Your task to perform on an android device: What's the news this month? Image 0: 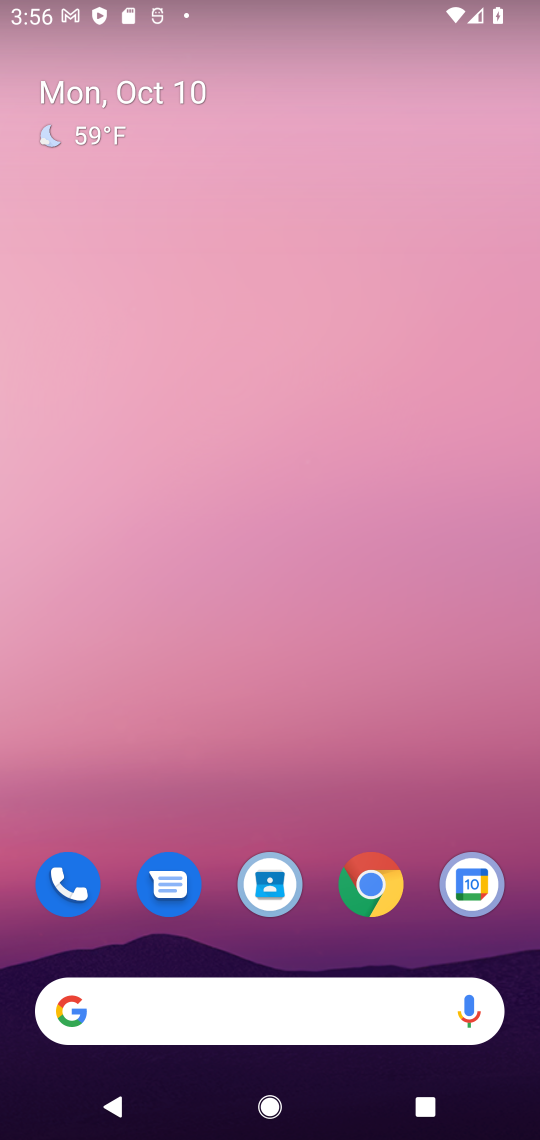
Step 0: click (164, 1007)
Your task to perform on an android device: What's the news this month? Image 1: 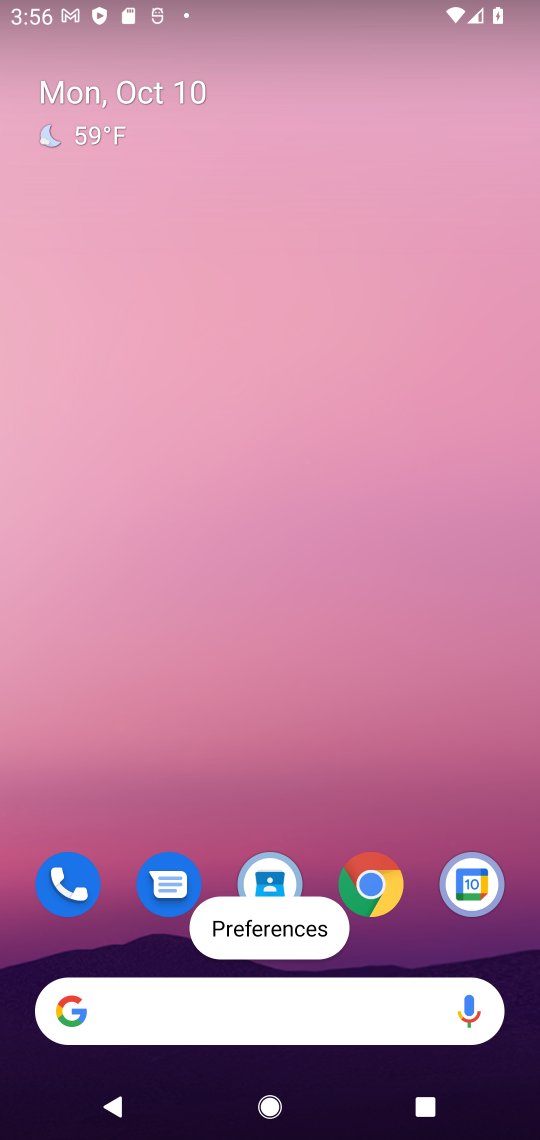
Step 1: click (292, 1010)
Your task to perform on an android device: What's the news this month? Image 2: 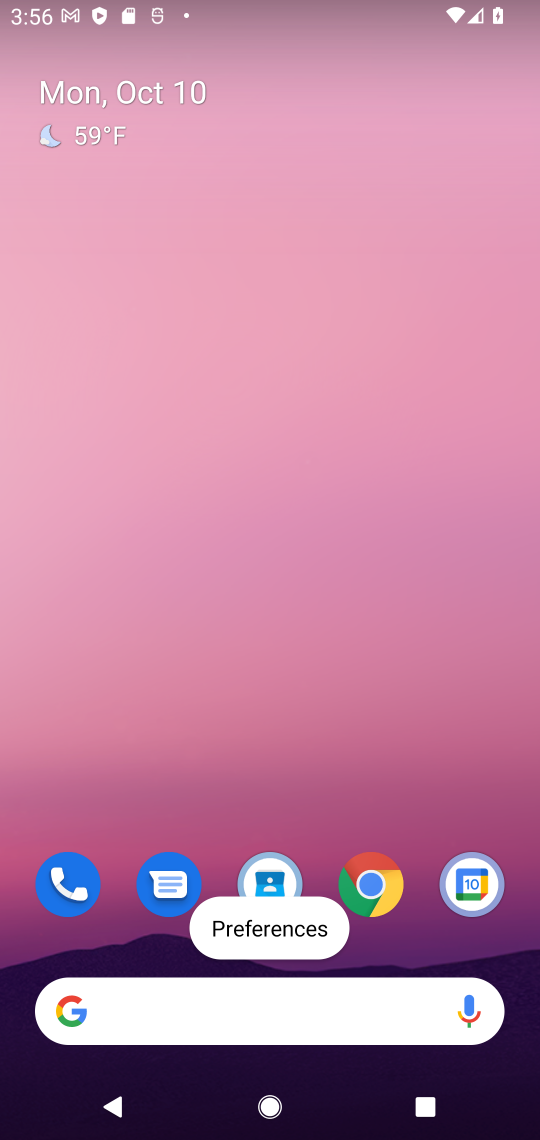
Step 2: click (135, 1027)
Your task to perform on an android device: What's the news this month? Image 3: 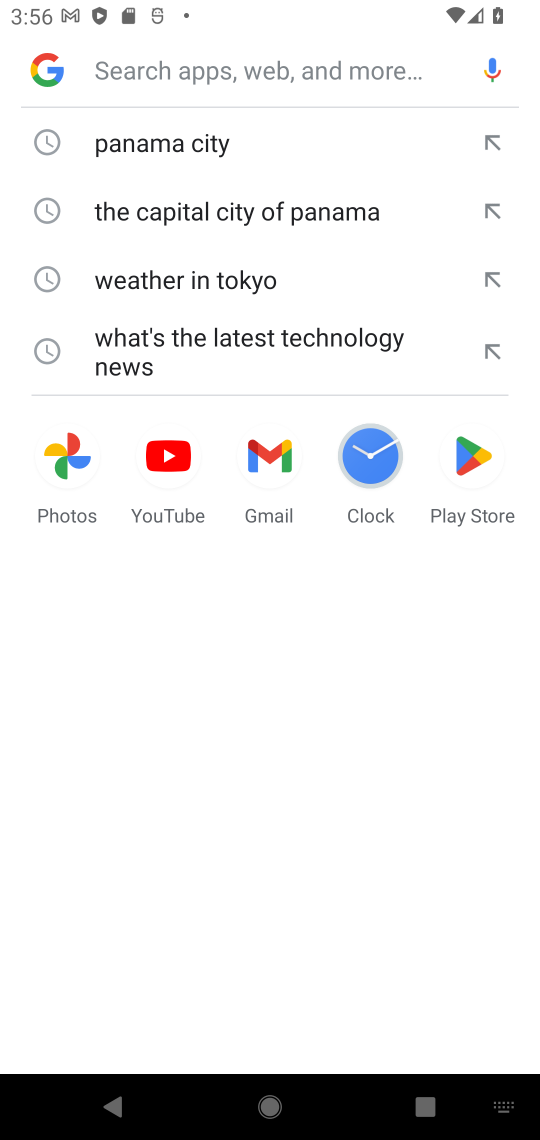
Step 3: click (211, 80)
Your task to perform on an android device: What's the news this month? Image 4: 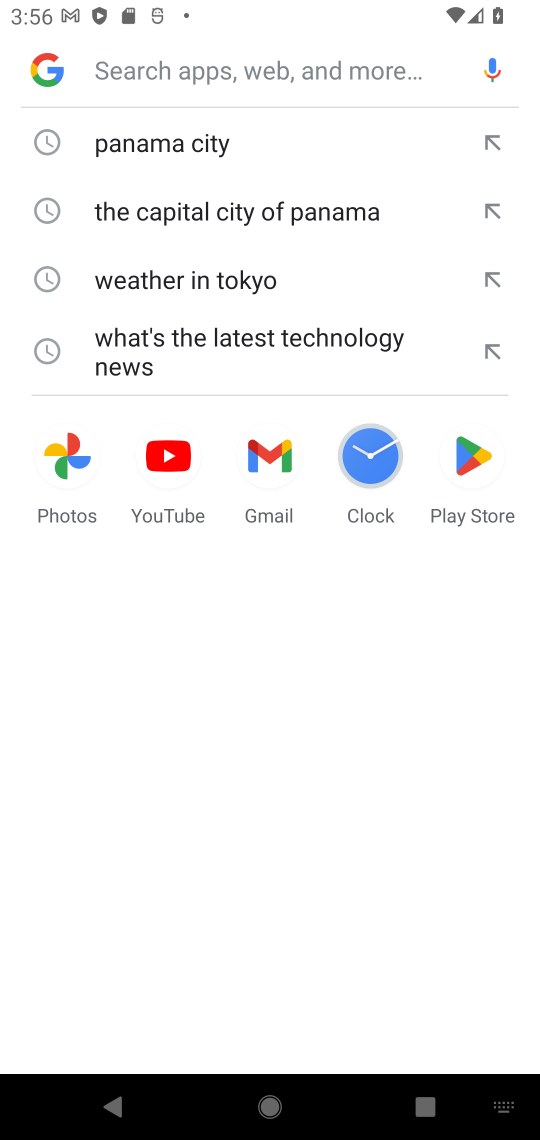
Step 4: type "What's the news this month?"
Your task to perform on an android device: What's the news this month? Image 5: 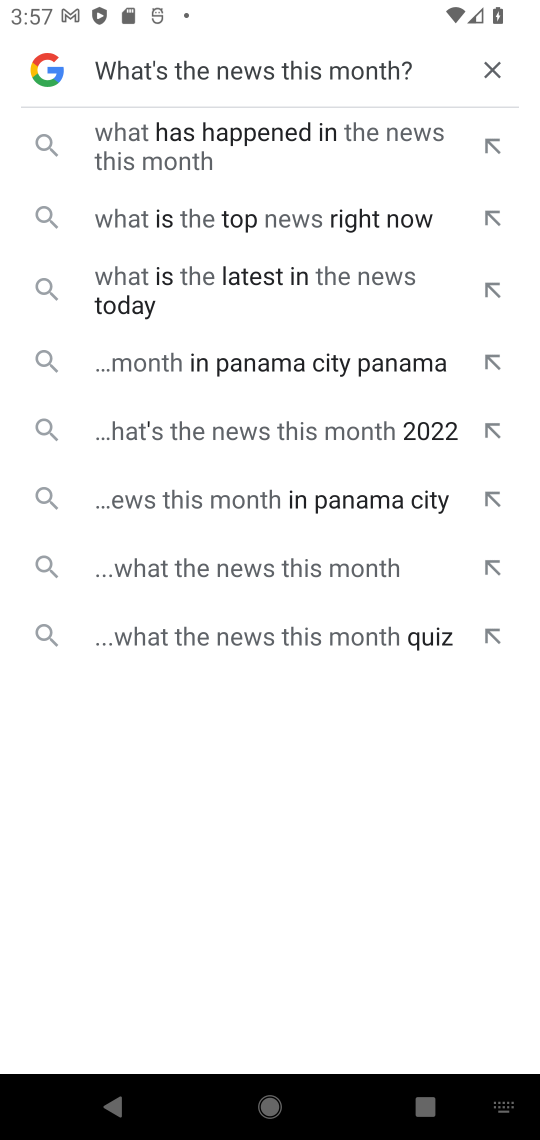
Step 5: click (169, 141)
Your task to perform on an android device: What's the news this month? Image 6: 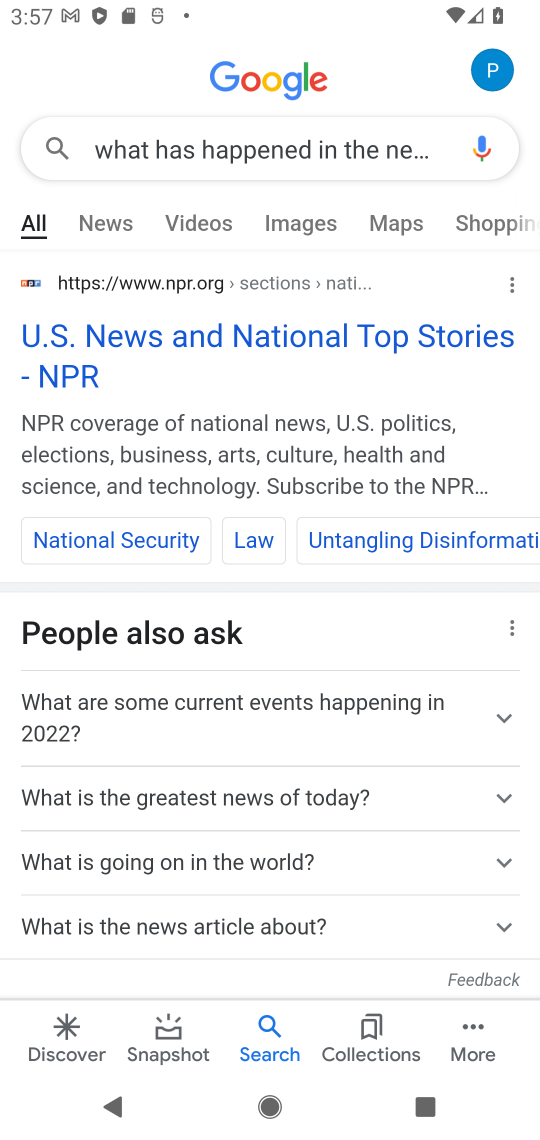
Step 6: click (134, 354)
Your task to perform on an android device: What's the news this month? Image 7: 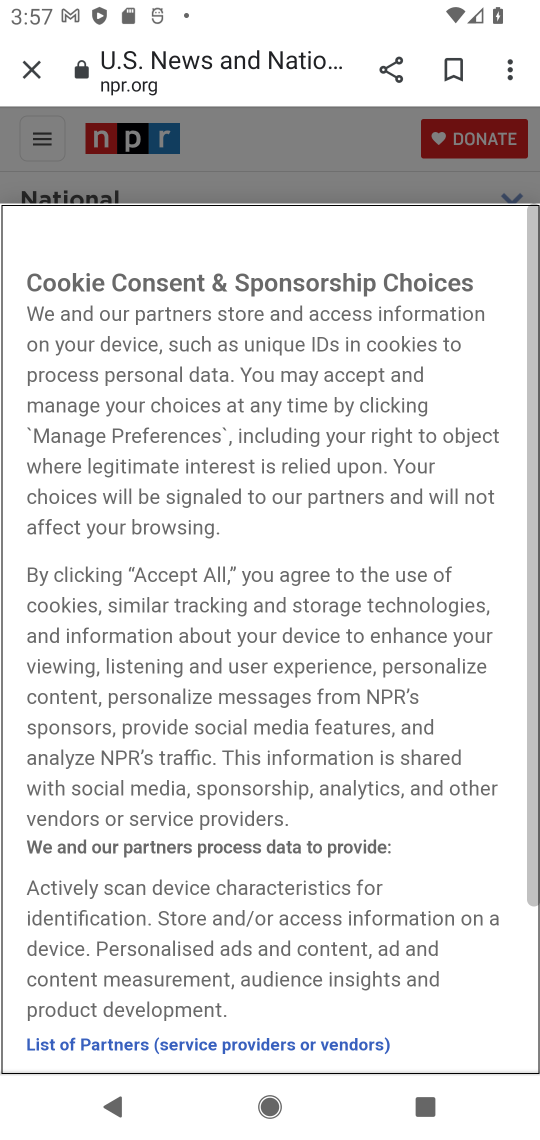
Step 7: task complete